Your task to perform on an android device: Open the map Image 0: 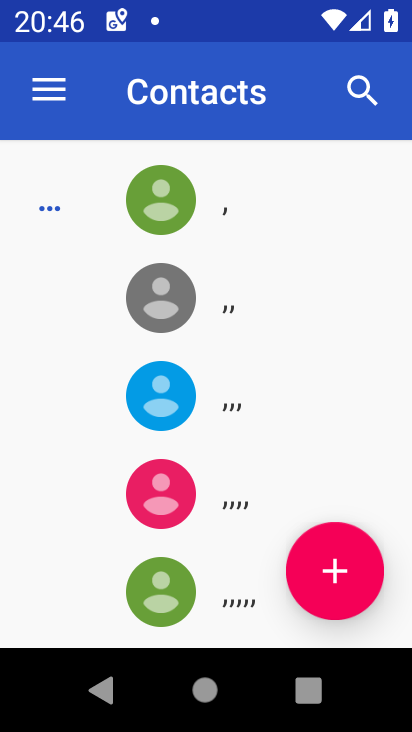
Step 0: press home button
Your task to perform on an android device: Open the map Image 1: 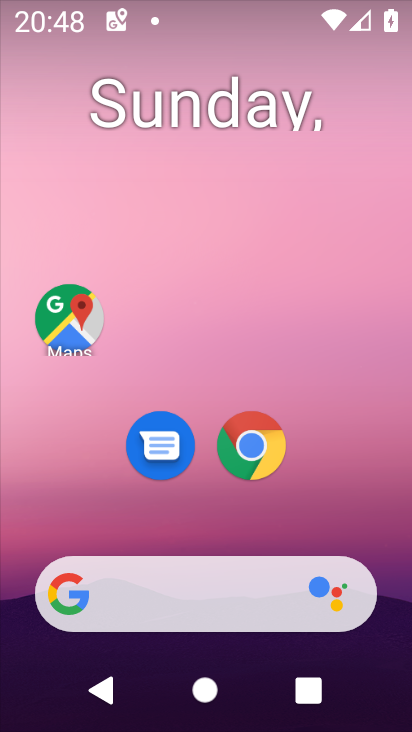
Step 1: click (58, 314)
Your task to perform on an android device: Open the map Image 2: 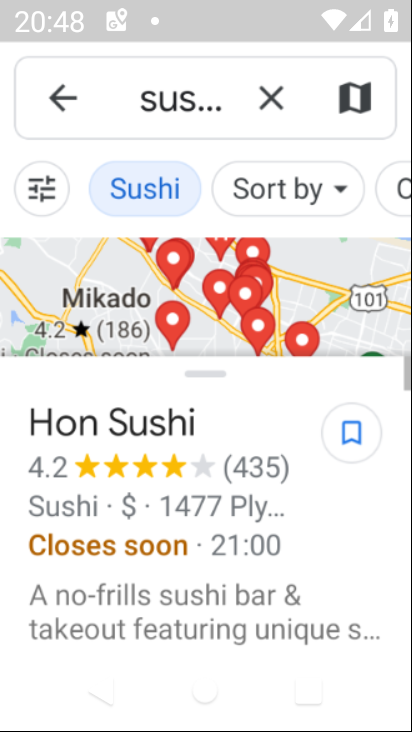
Step 2: click (280, 99)
Your task to perform on an android device: Open the map Image 3: 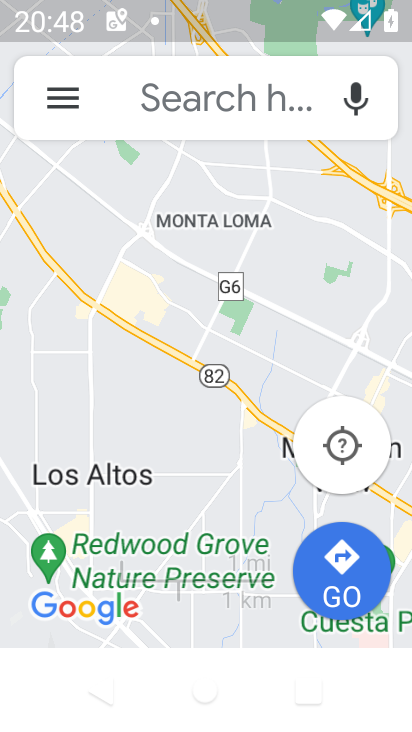
Step 3: task complete